Your task to perform on an android device: Is it going to rain this weekend? Image 0: 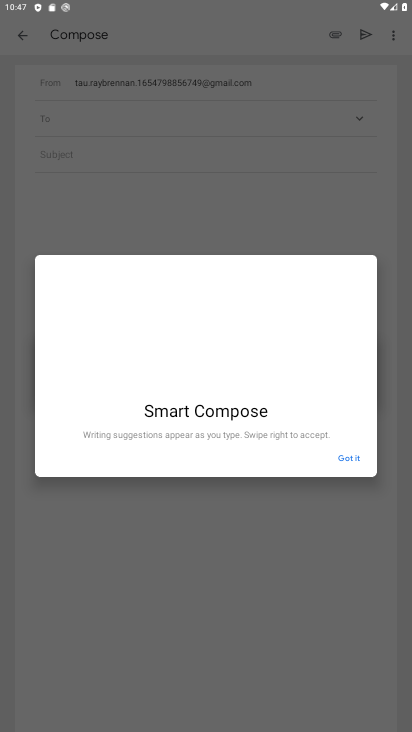
Step 0: press home button
Your task to perform on an android device: Is it going to rain this weekend? Image 1: 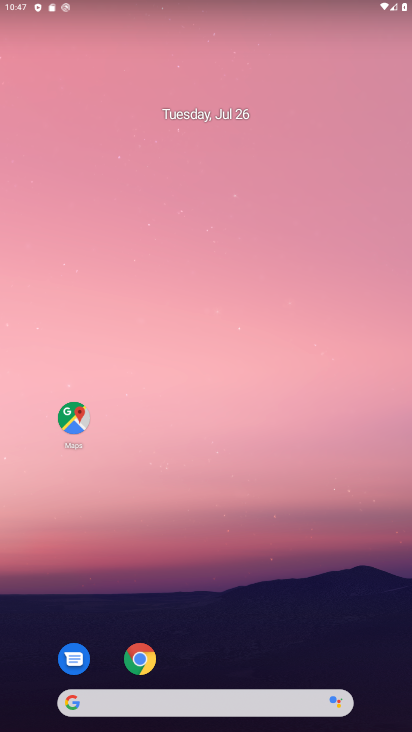
Step 1: drag from (166, 711) to (249, 95)
Your task to perform on an android device: Is it going to rain this weekend? Image 2: 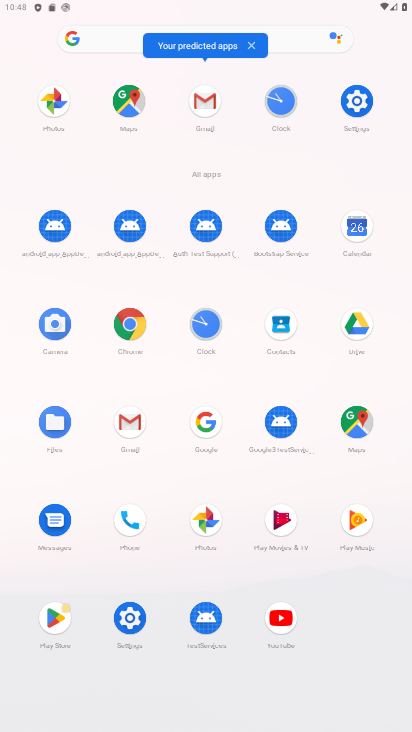
Step 2: click (204, 420)
Your task to perform on an android device: Is it going to rain this weekend? Image 3: 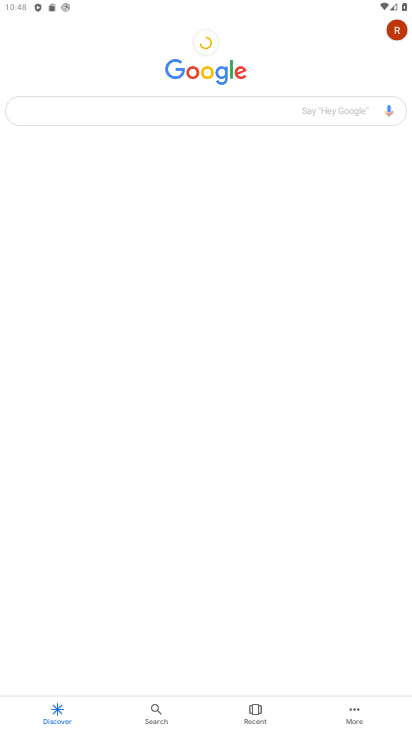
Step 3: click (261, 109)
Your task to perform on an android device: Is it going to rain this weekend? Image 4: 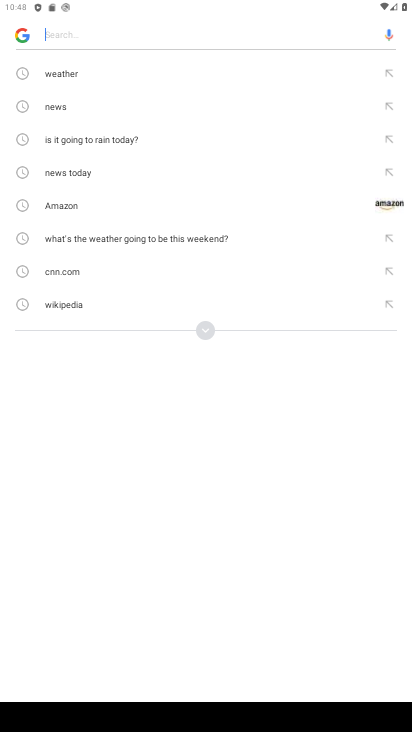
Step 4: type "Is it going to rain this weekend?"
Your task to perform on an android device: Is it going to rain this weekend? Image 5: 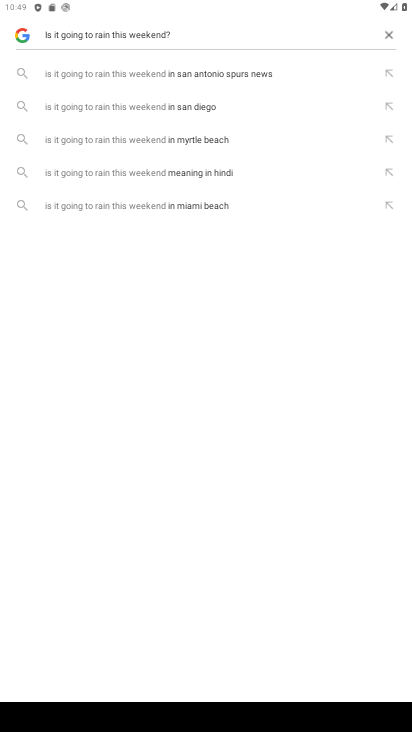
Step 5: click (119, 108)
Your task to perform on an android device: Is it going to rain this weekend? Image 6: 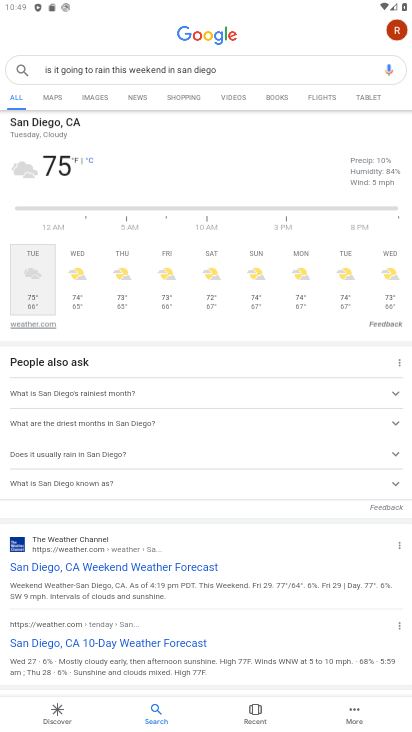
Step 6: click (206, 261)
Your task to perform on an android device: Is it going to rain this weekend? Image 7: 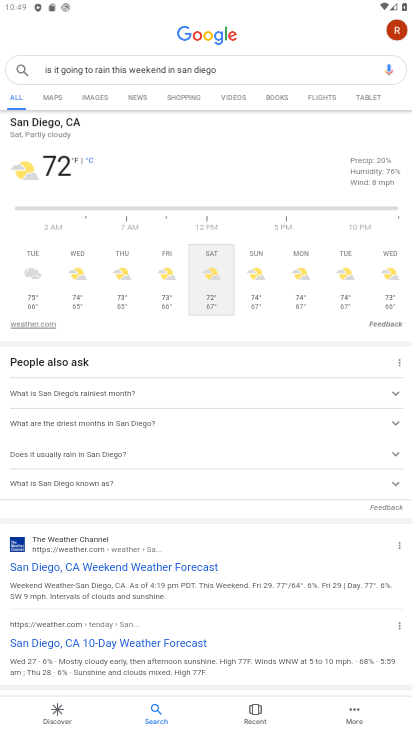
Step 7: task complete